Your task to perform on an android device: Open location settings Image 0: 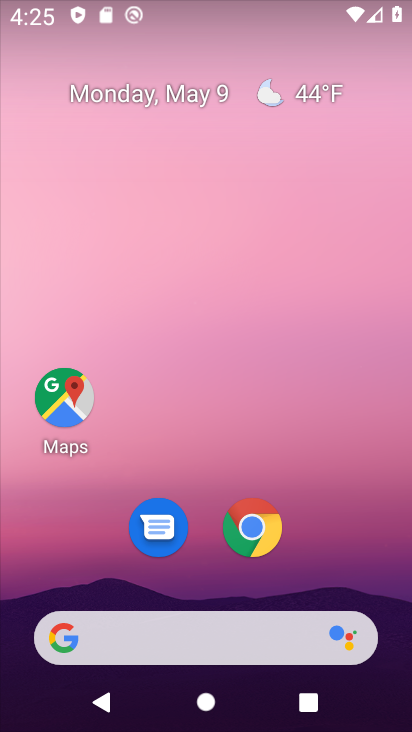
Step 0: drag from (212, 587) to (244, 280)
Your task to perform on an android device: Open location settings Image 1: 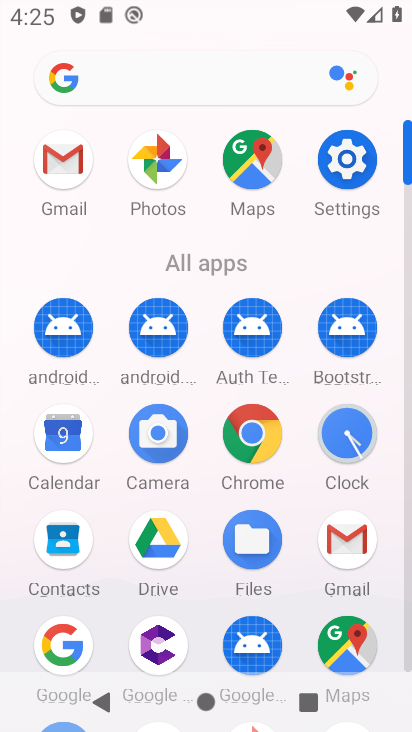
Step 1: click (348, 173)
Your task to perform on an android device: Open location settings Image 2: 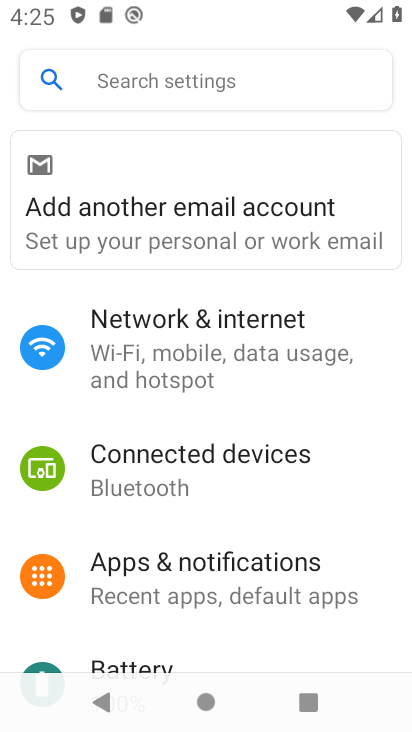
Step 2: drag from (134, 608) to (195, 122)
Your task to perform on an android device: Open location settings Image 3: 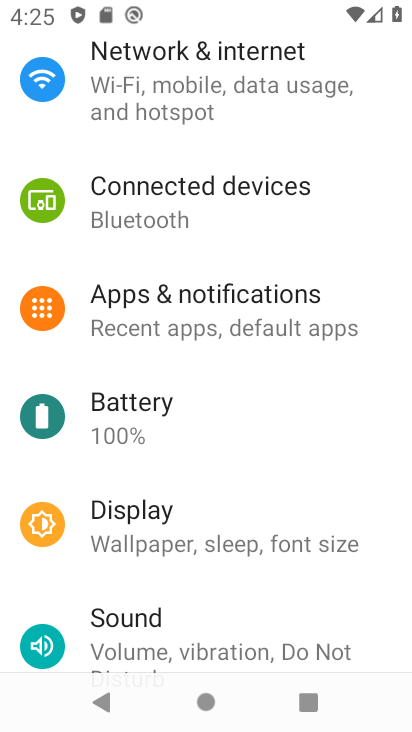
Step 3: drag from (184, 554) to (182, 149)
Your task to perform on an android device: Open location settings Image 4: 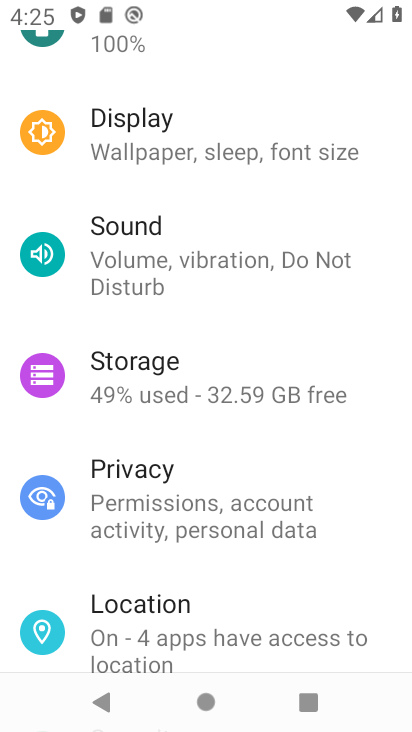
Step 4: click (148, 621)
Your task to perform on an android device: Open location settings Image 5: 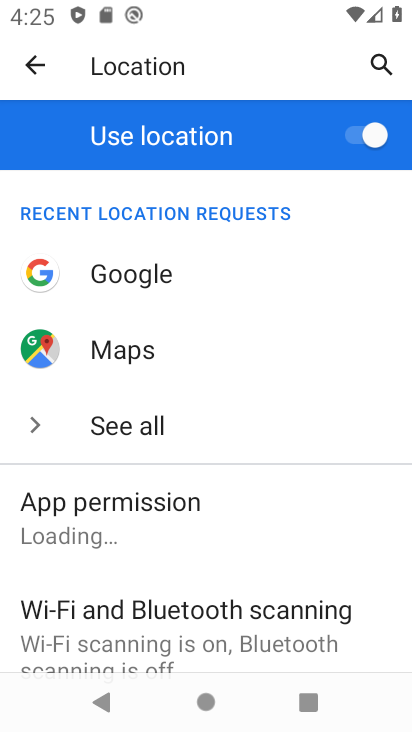
Step 5: task complete